Your task to perform on an android device: Open Reddit.com Image 0: 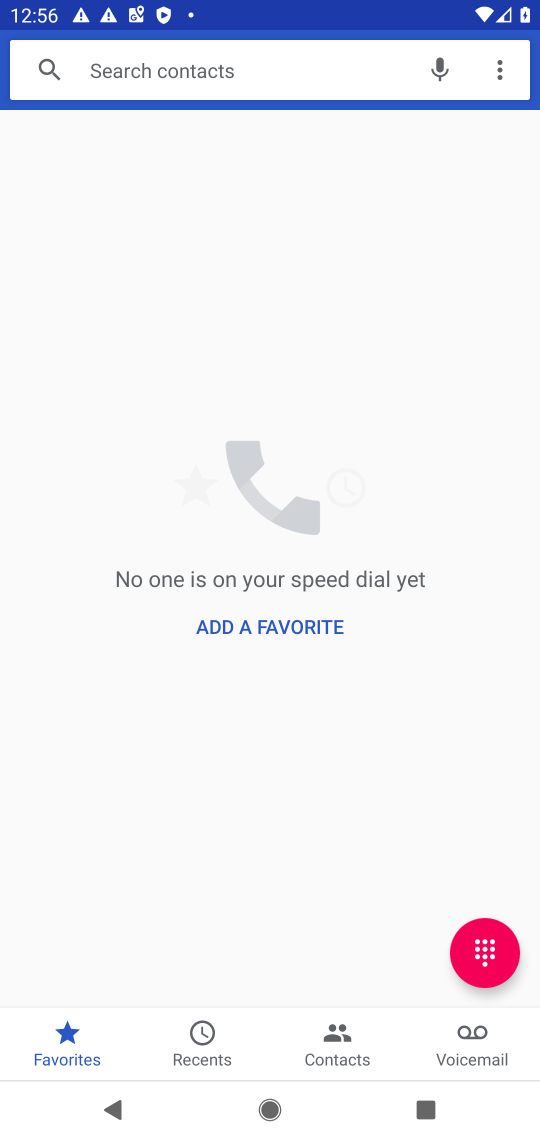
Step 0: press home button
Your task to perform on an android device: Open Reddit.com Image 1: 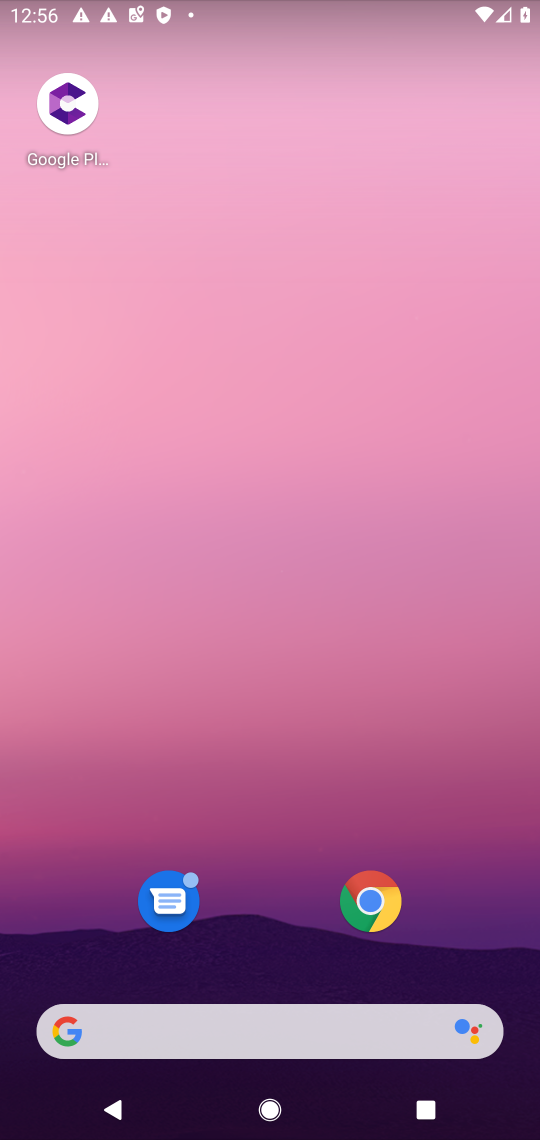
Step 1: click (370, 885)
Your task to perform on an android device: Open Reddit.com Image 2: 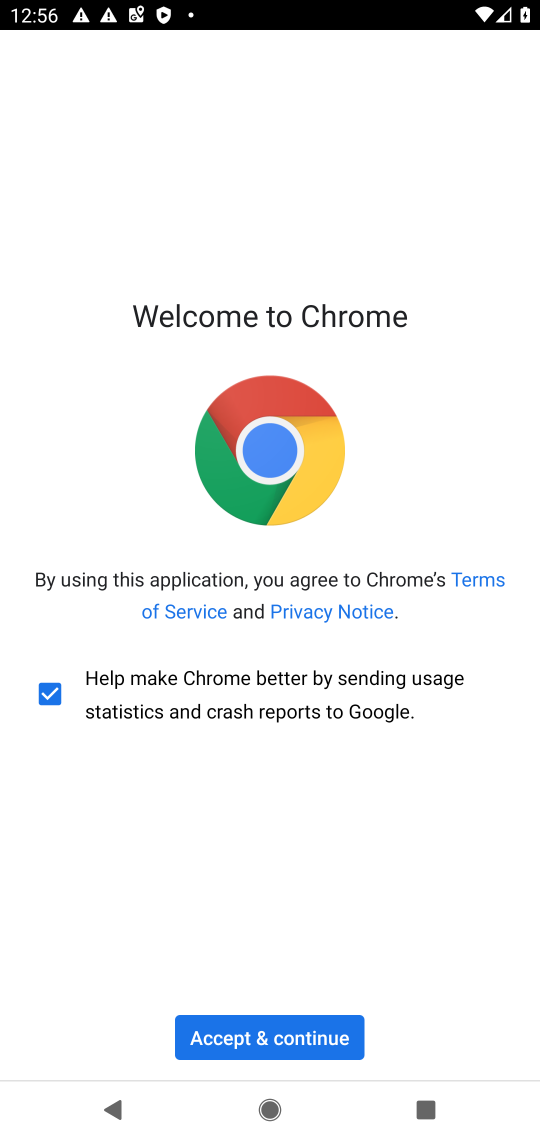
Step 2: click (207, 1035)
Your task to perform on an android device: Open Reddit.com Image 3: 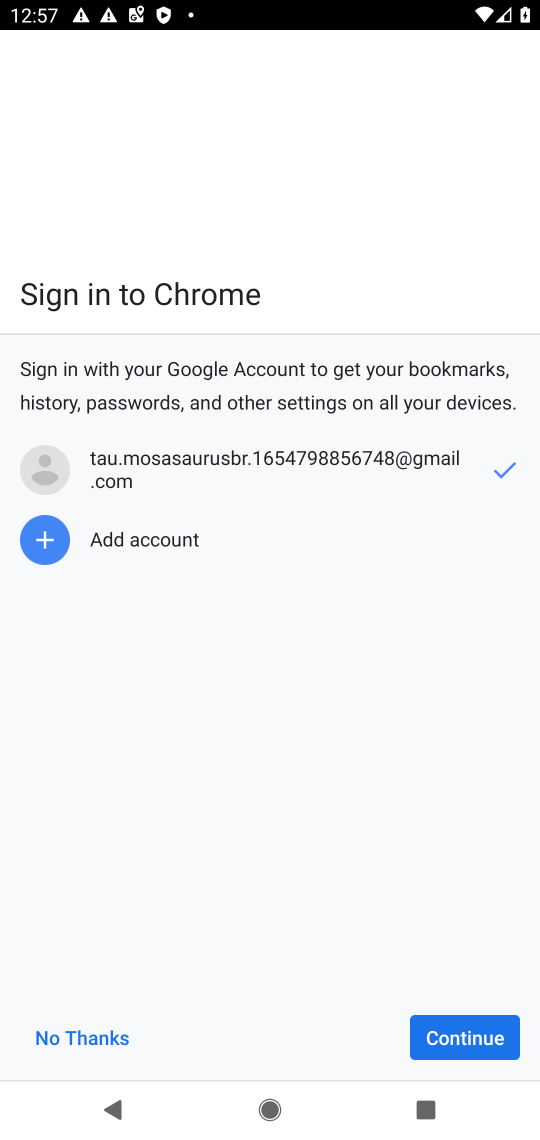
Step 3: click (474, 1050)
Your task to perform on an android device: Open Reddit.com Image 4: 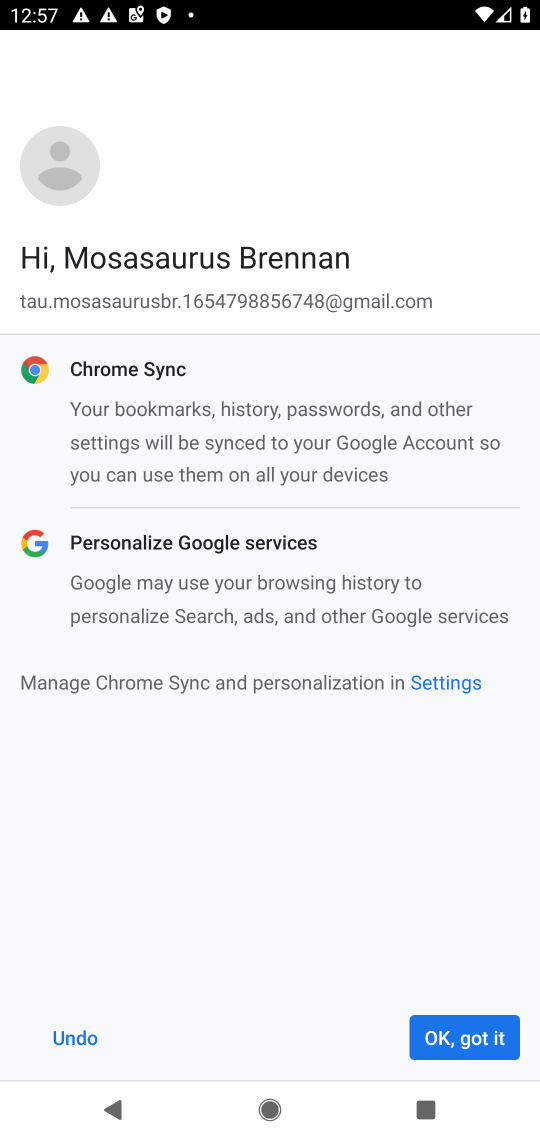
Step 4: click (470, 1042)
Your task to perform on an android device: Open Reddit.com Image 5: 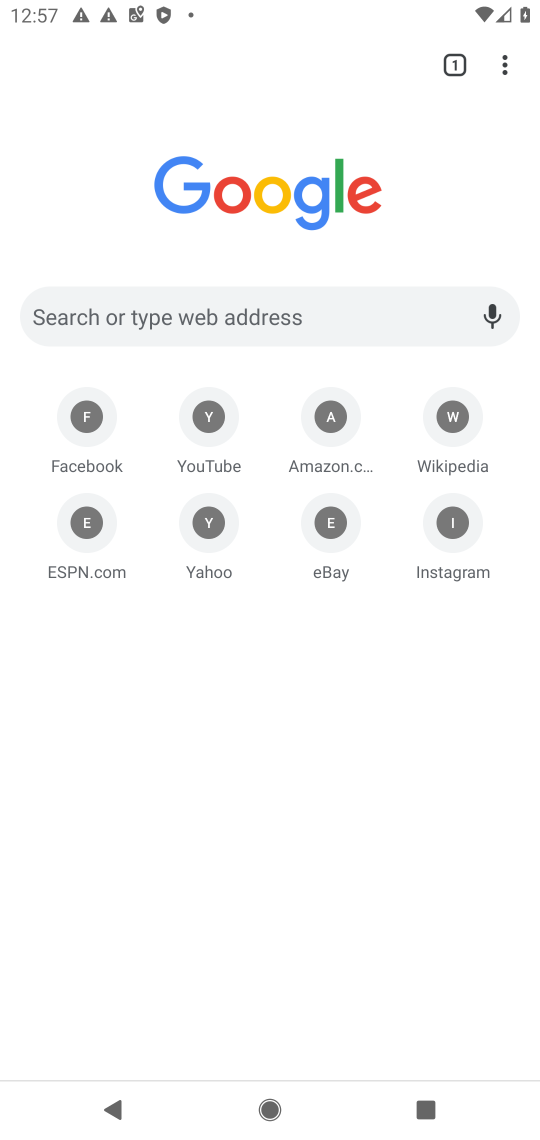
Step 5: click (346, 71)
Your task to perform on an android device: Open Reddit.com Image 6: 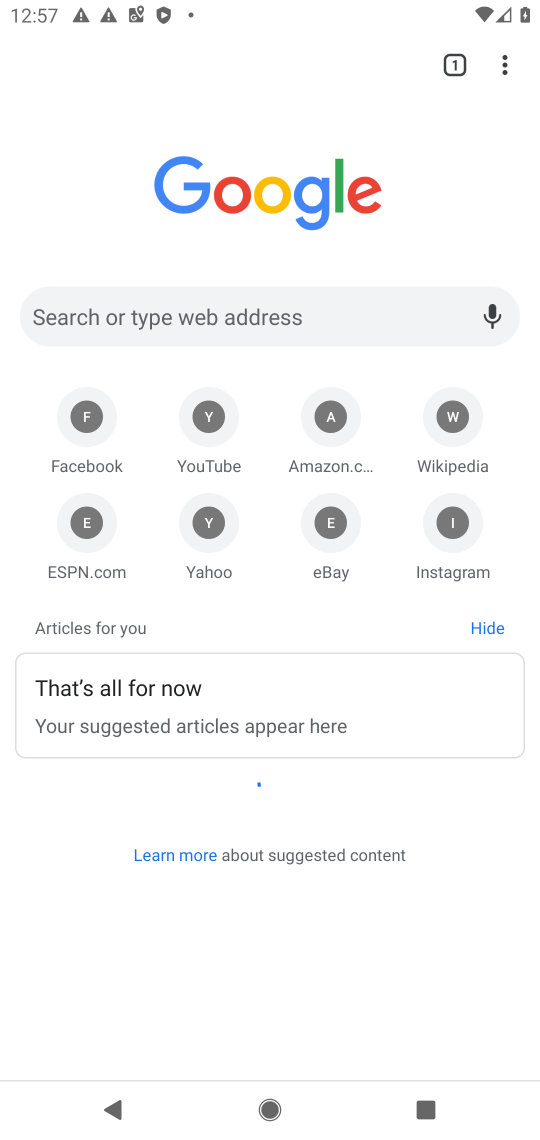
Step 6: type "reddit.com"
Your task to perform on an android device: Open Reddit.com Image 7: 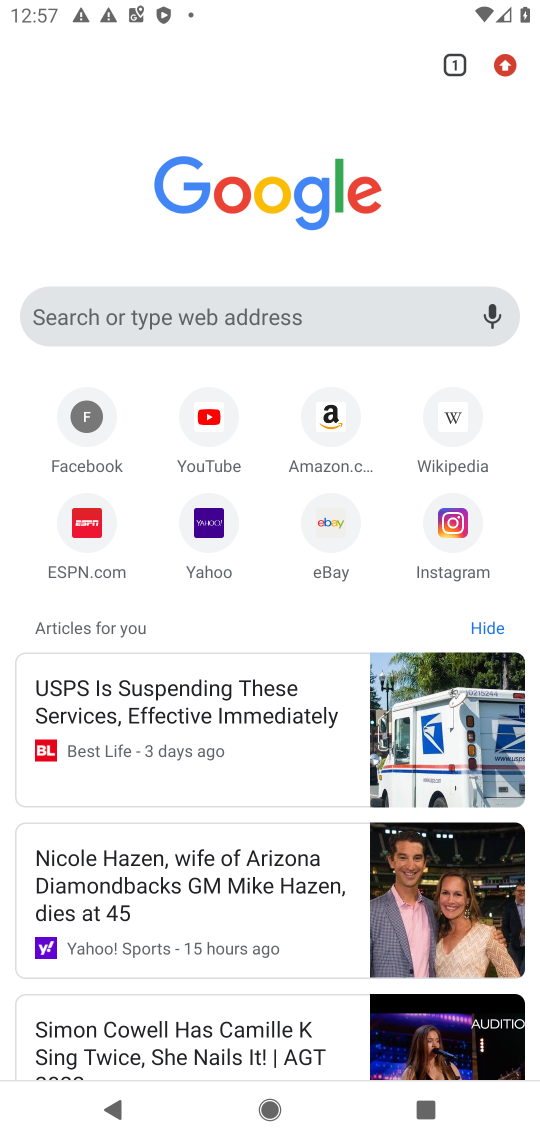
Step 7: click (357, 318)
Your task to perform on an android device: Open Reddit.com Image 8: 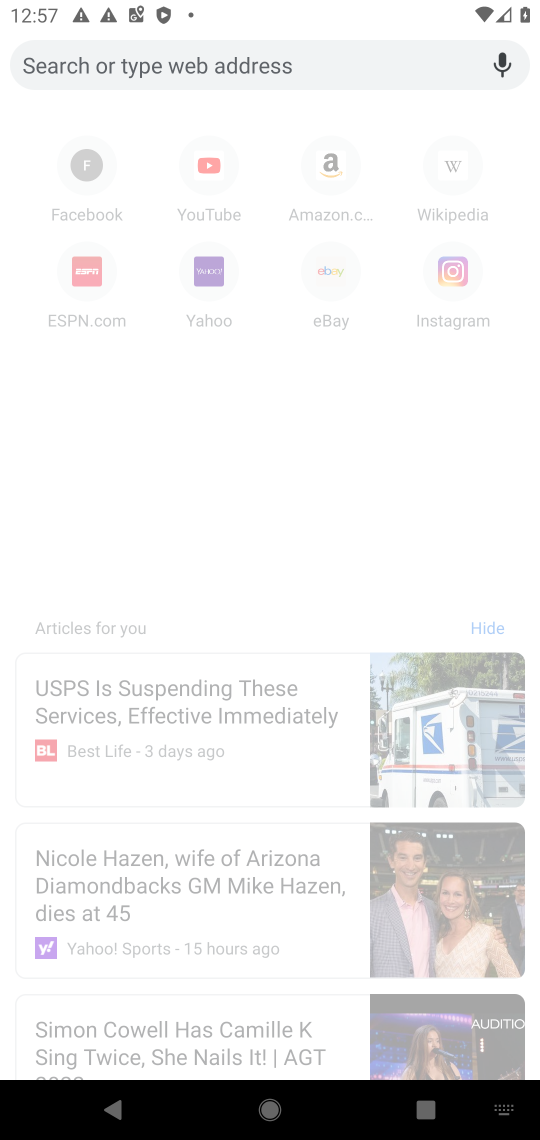
Step 8: type "reddit.com"
Your task to perform on an android device: Open Reddit.com Image 9: 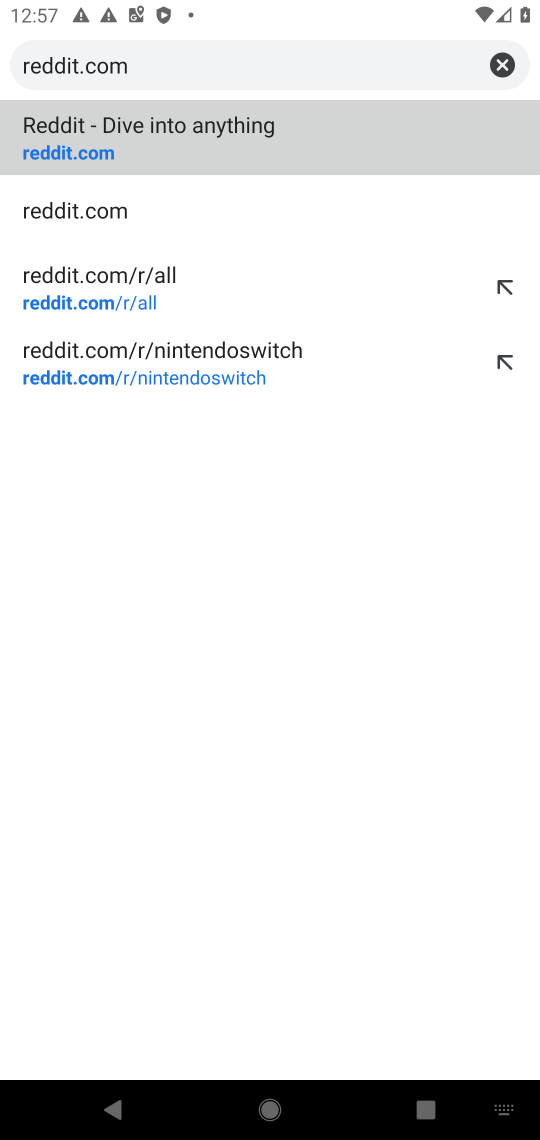
Step 9: click (228, 136)
Your task to perform on an android device: Open Reddit.com Image 10: 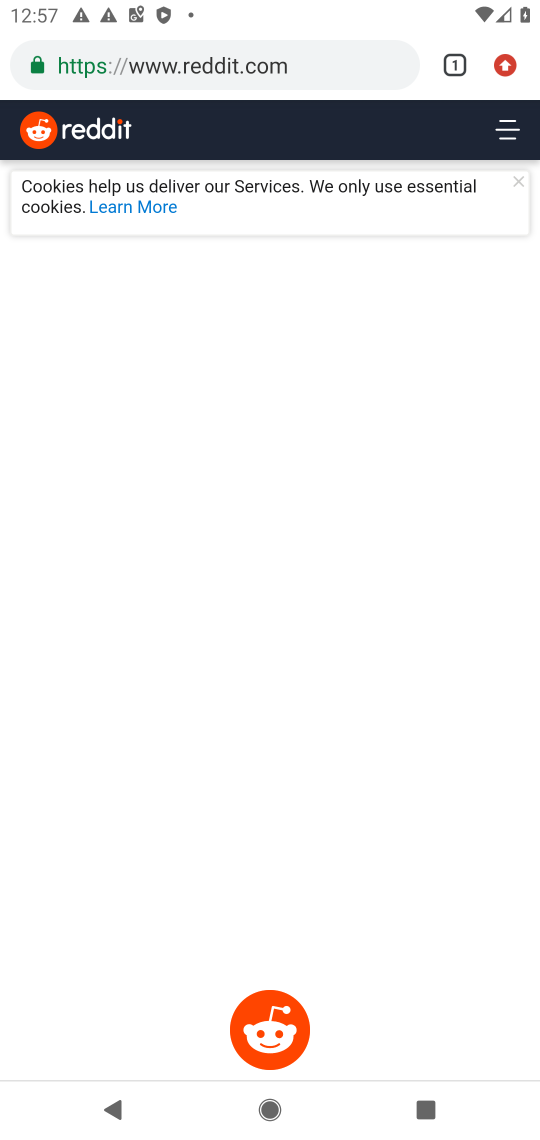
Step 10: task complete